Your task to perform on an android device: toggle sleep mode Image 0: 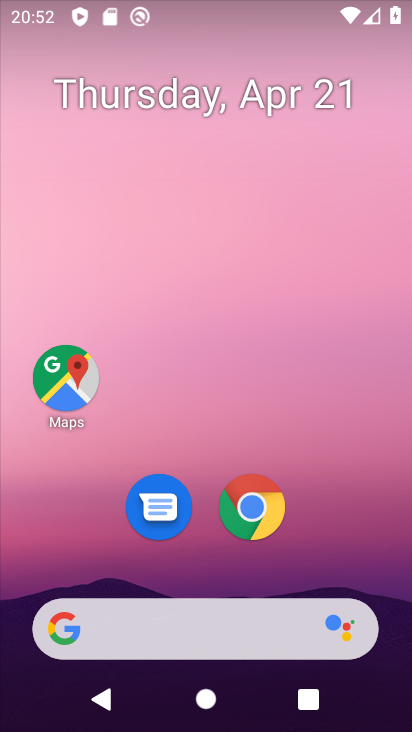
Step 0: drag from (222, 578) to (291, 30)
Your task to perform on an android device: toggle sleep mode Image 1: 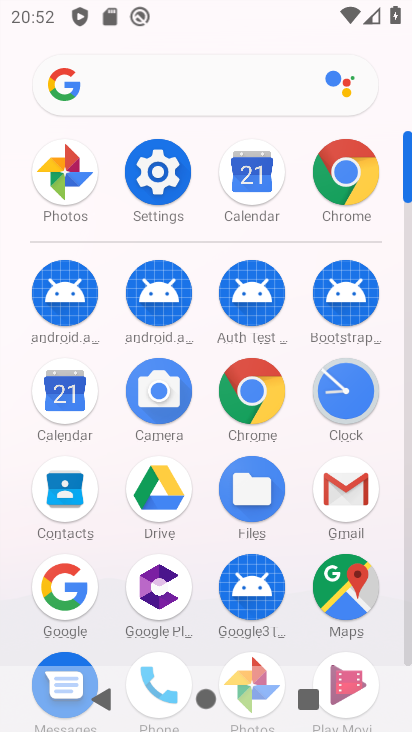
Step 1: click (164, 167)
Your task to perform on an android device: toggle sleep mode Image 2: 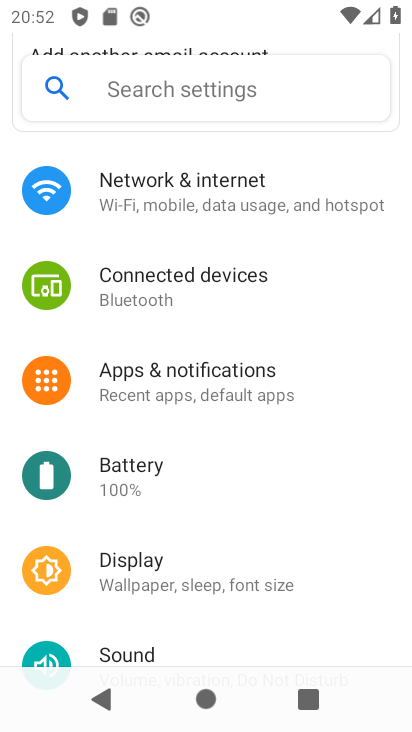
Step 2: click (209, 92)
Your task to perform on an android device: toggle sleep mode Image 3: 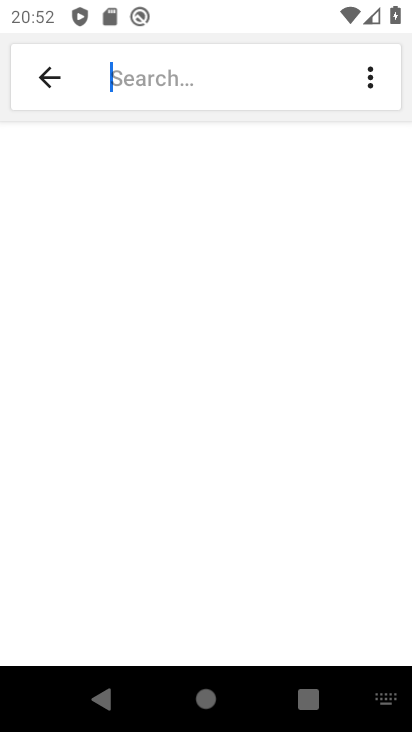
Step 3: type "sleep mode"
Your task to perform on an android device: toggle sleep mode Image 4: 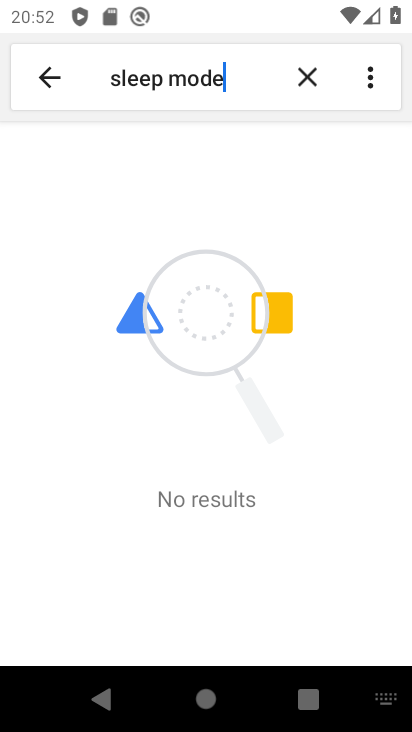
Step 4: task complete